Your task to perform on an android device: change the clock display to show seconds Image 0: 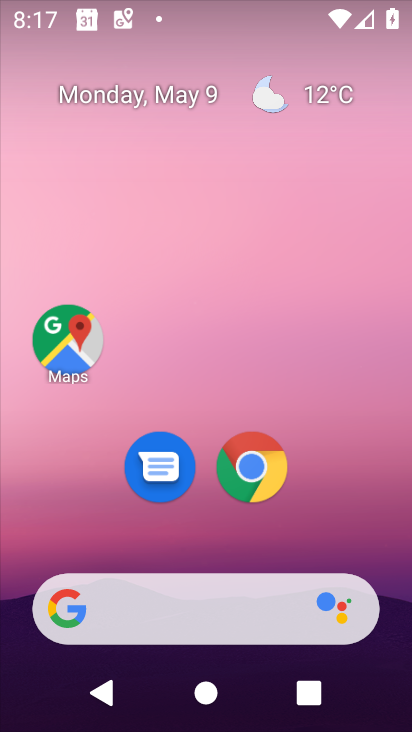
Step 0: drag from (356, 552) to (362, 2)
Your task to perform on an android device: change the clock display to show seconds Image 1: 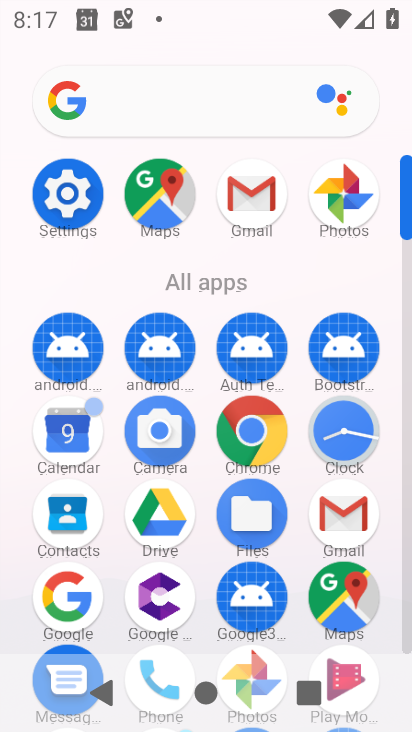
Step 1: click (343, 440)
Your task to perform on an android device: change the clock display to show seconds Image 2: 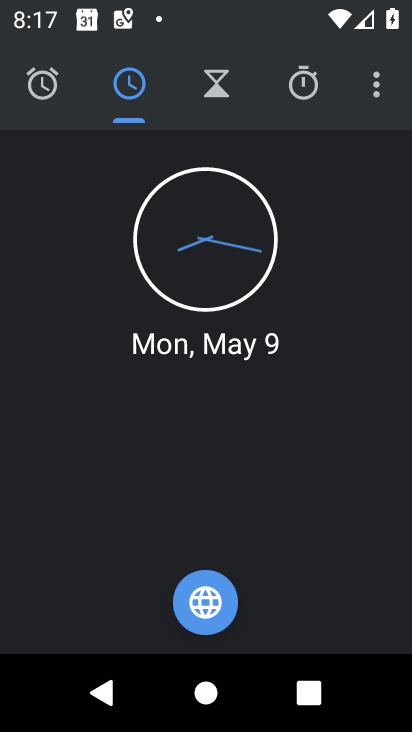
Step 2: click (372, 86)
Your task to perform on an android device: change the clock display to show seconds Image 3: 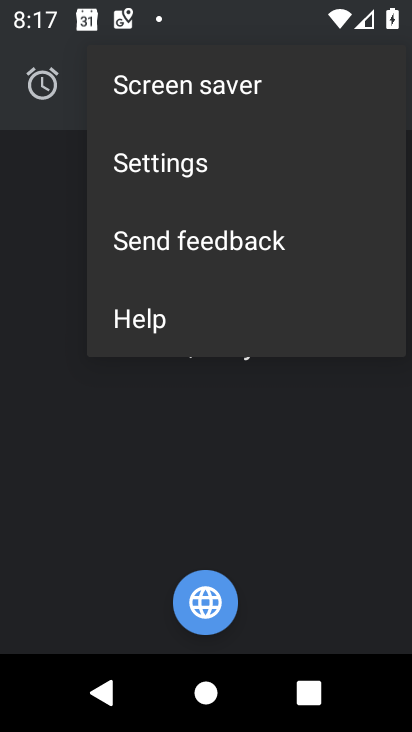
Step 3: click (150, 178)
Your task to perform on an android device: change the clock display to show seconds Image 4: 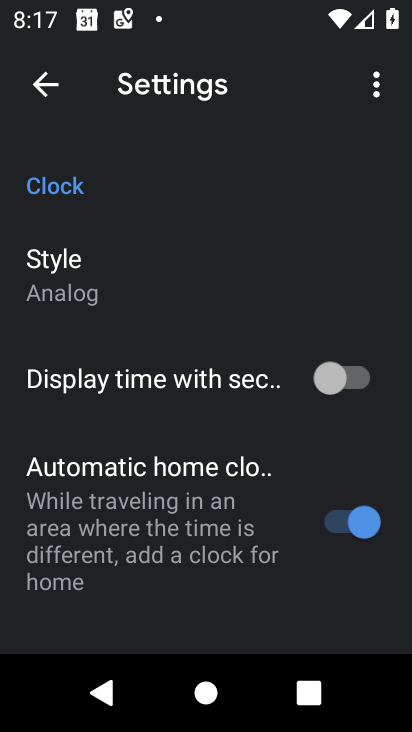
Step 4: click (325, 382)
Your task to perform on an android device: change the clock display to show seconds Image 5: 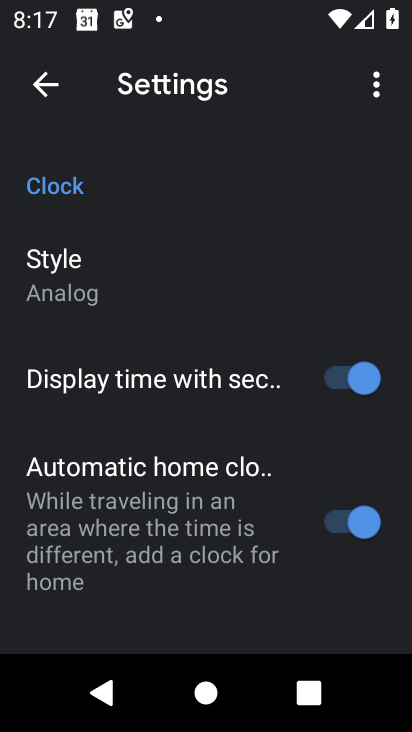
Step 5: task complete